Your task to perform on an android device: move an email to a new category in the gmail app Image 0: 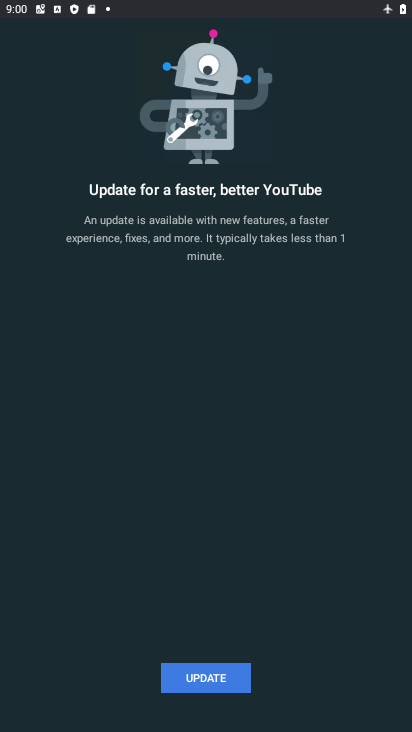
Step 0: press home button
Your task to perform on an android device: move an email to a new category in the gmail app Image 1: 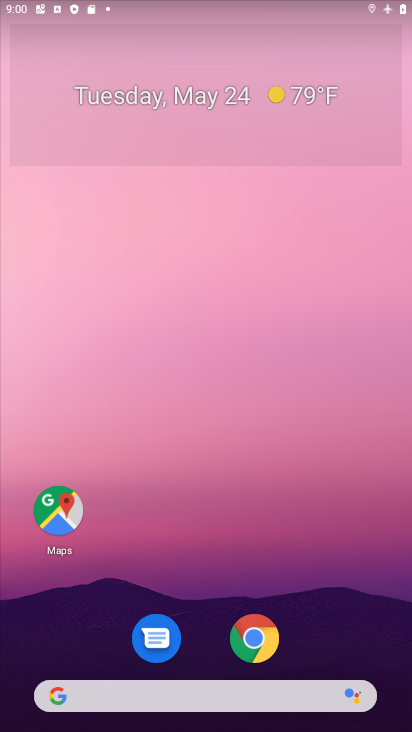
Step 1: drag from (142, 713) to (80, 226)
Your task to perform on an android device: move an email to a new category in the gmail app Image 2: 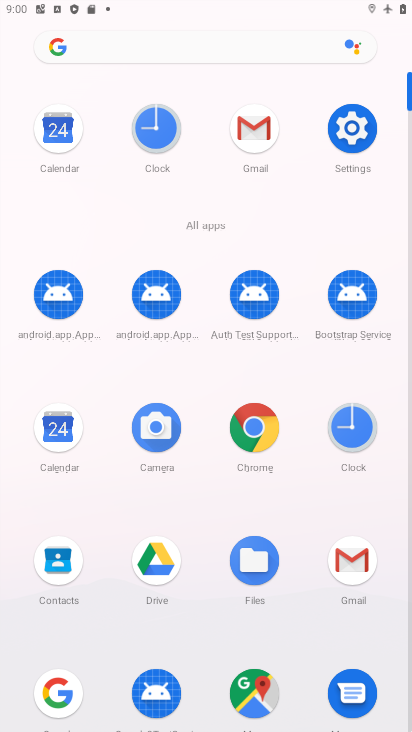
Step 2: click (244, 136)
Your task to perform on an android device: move an email to a new category in the gmail app Image 3: 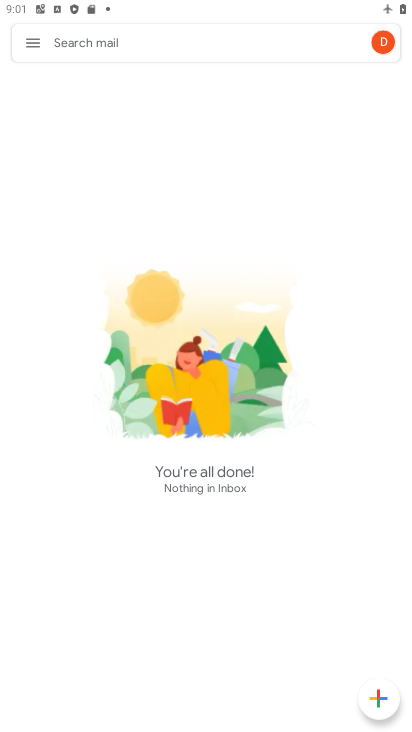
Step 3: task complete